Your task to perform on an android device: refresh tabs in the chrome app Image 0: 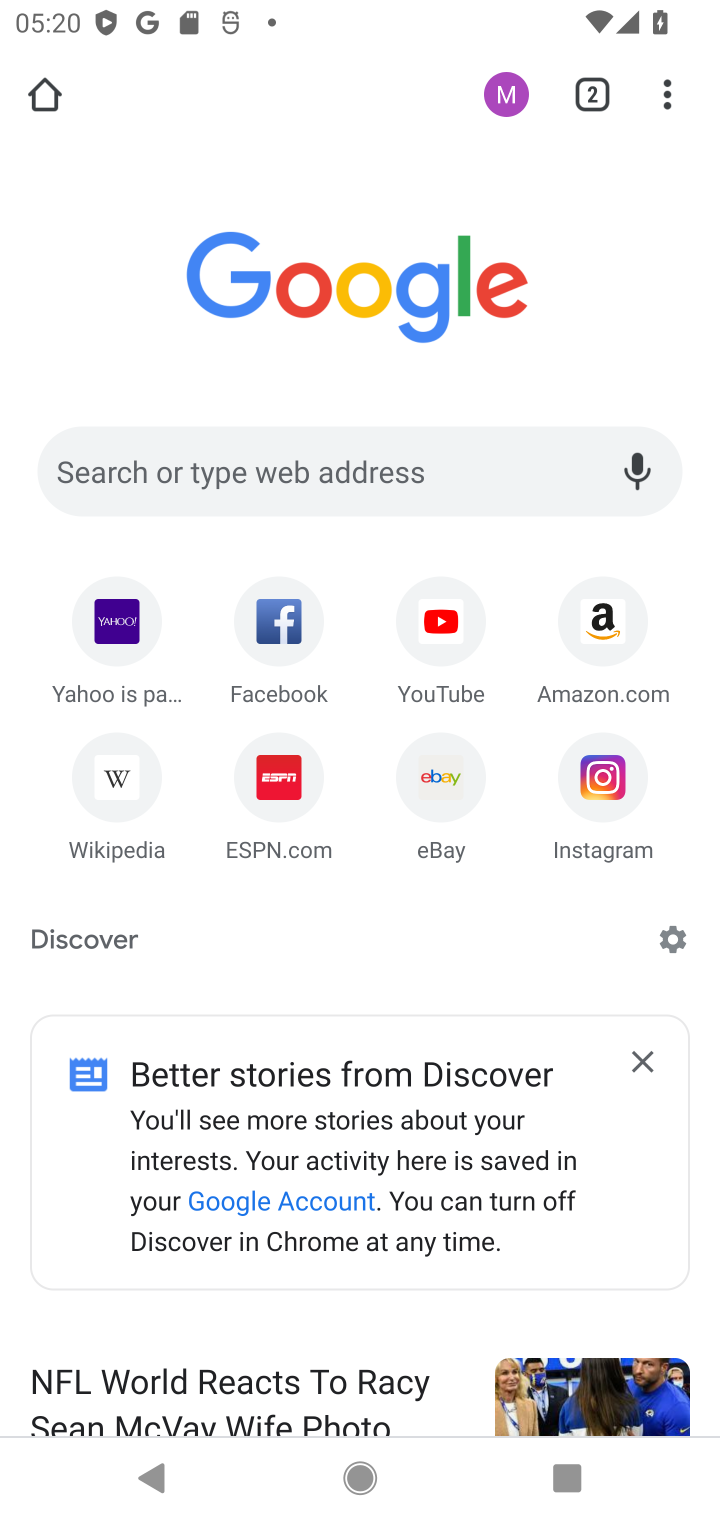
Step 0: press home button
Your task to perform on an android device: refresh tabs in the chrome app Image 1: 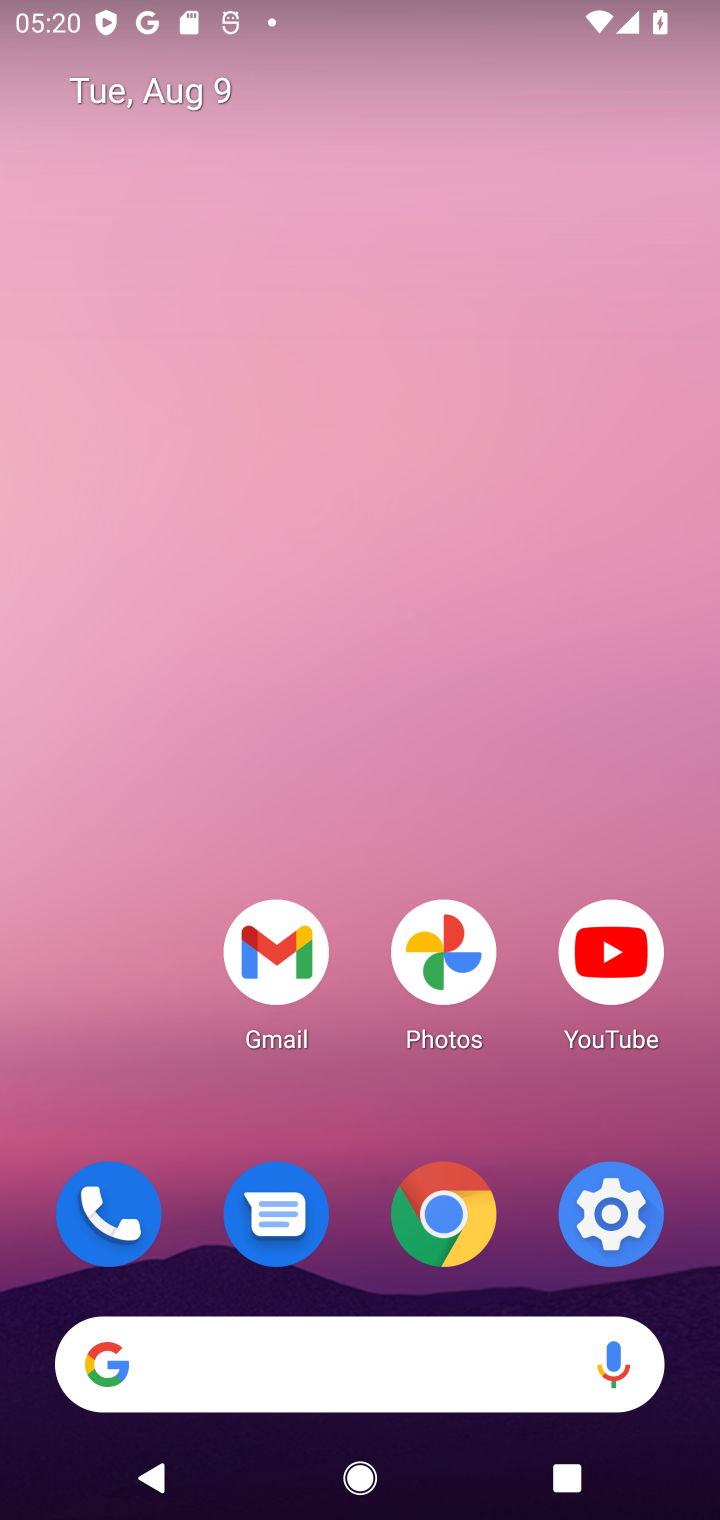
Step 1: drag from (373, 1408) to (441, 241)
Your task to perform on an android device: refresh tabs in the chrome app Image 2: 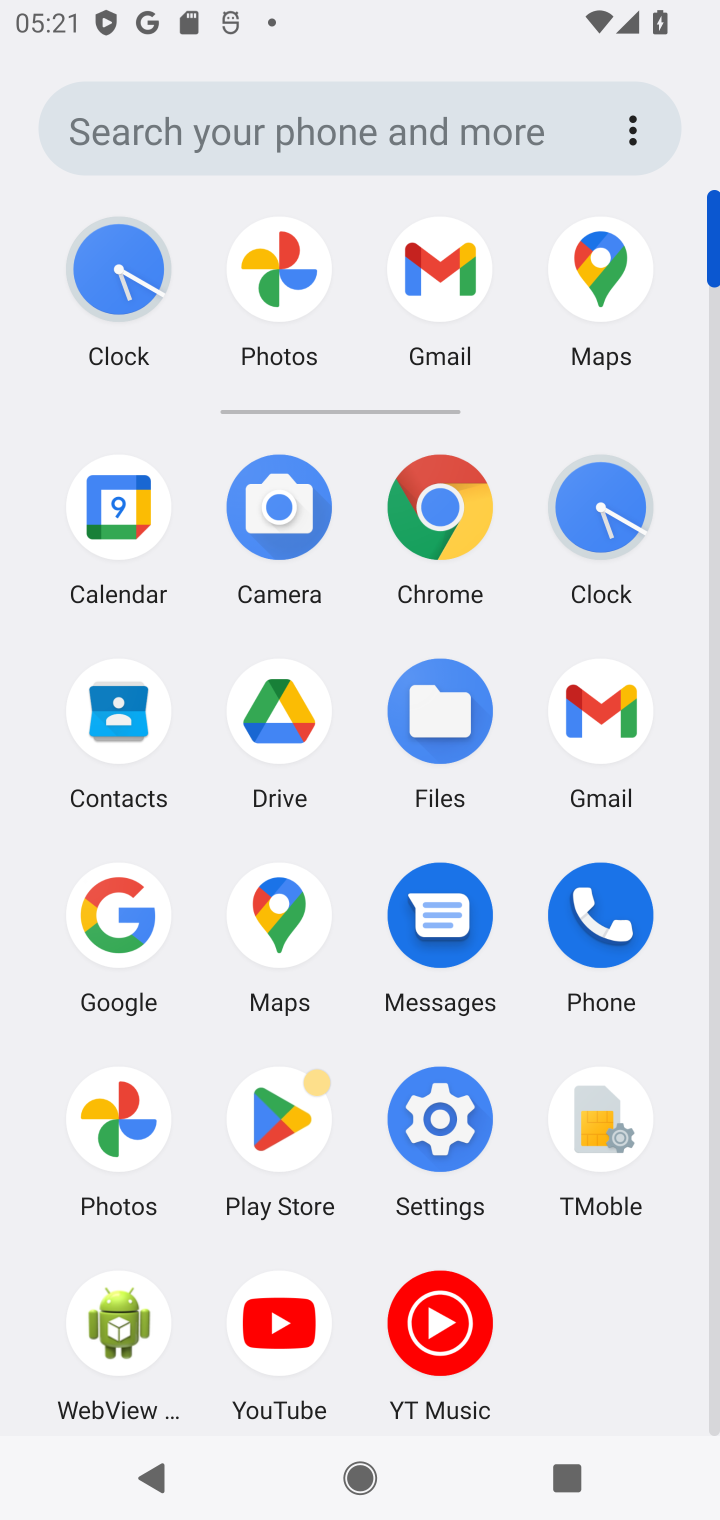
Step 2: click (437, 521)
Your task to perform on an android device: refresh tabs in the chrome app Image 3: 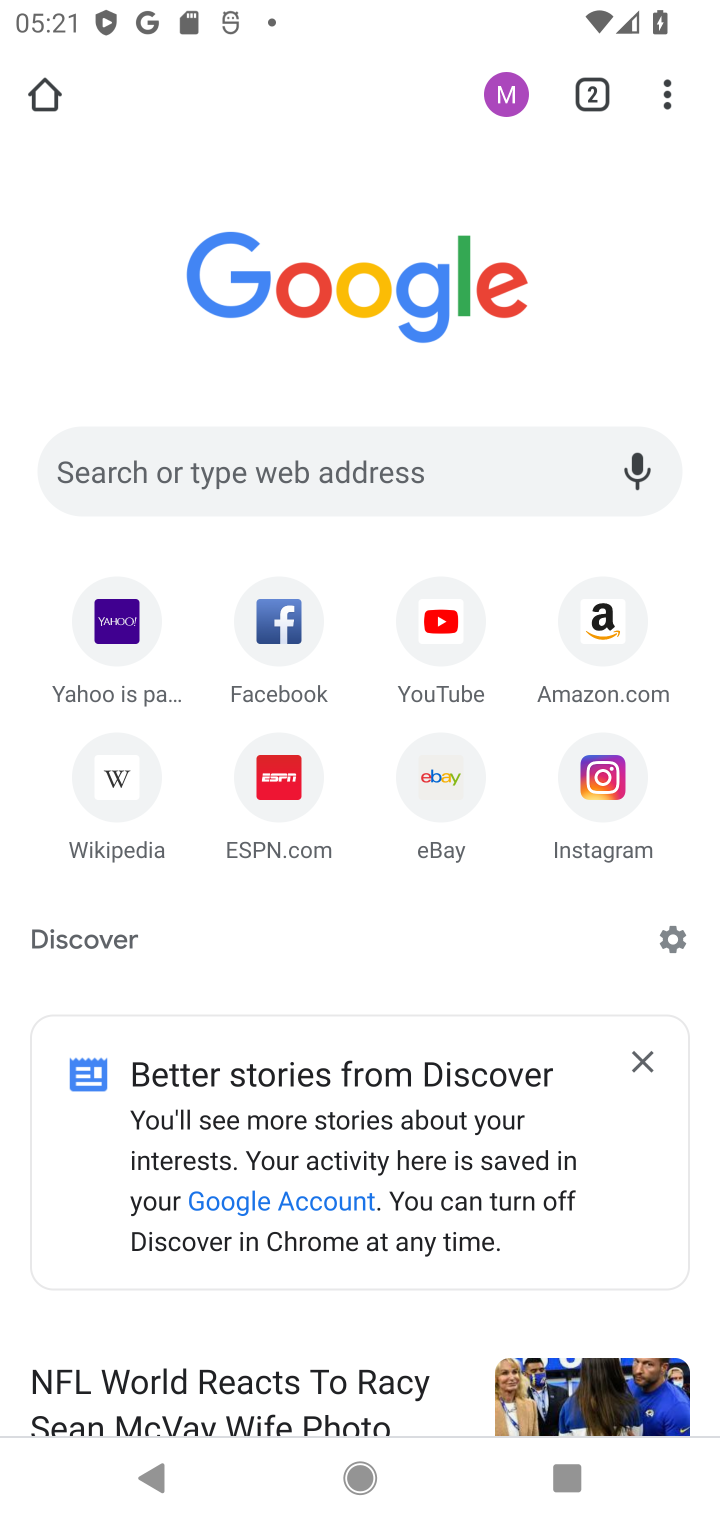
Step 3: click (659, 122)
Your task to perform on an android device: refresh tabs in the chrome app Image 4: 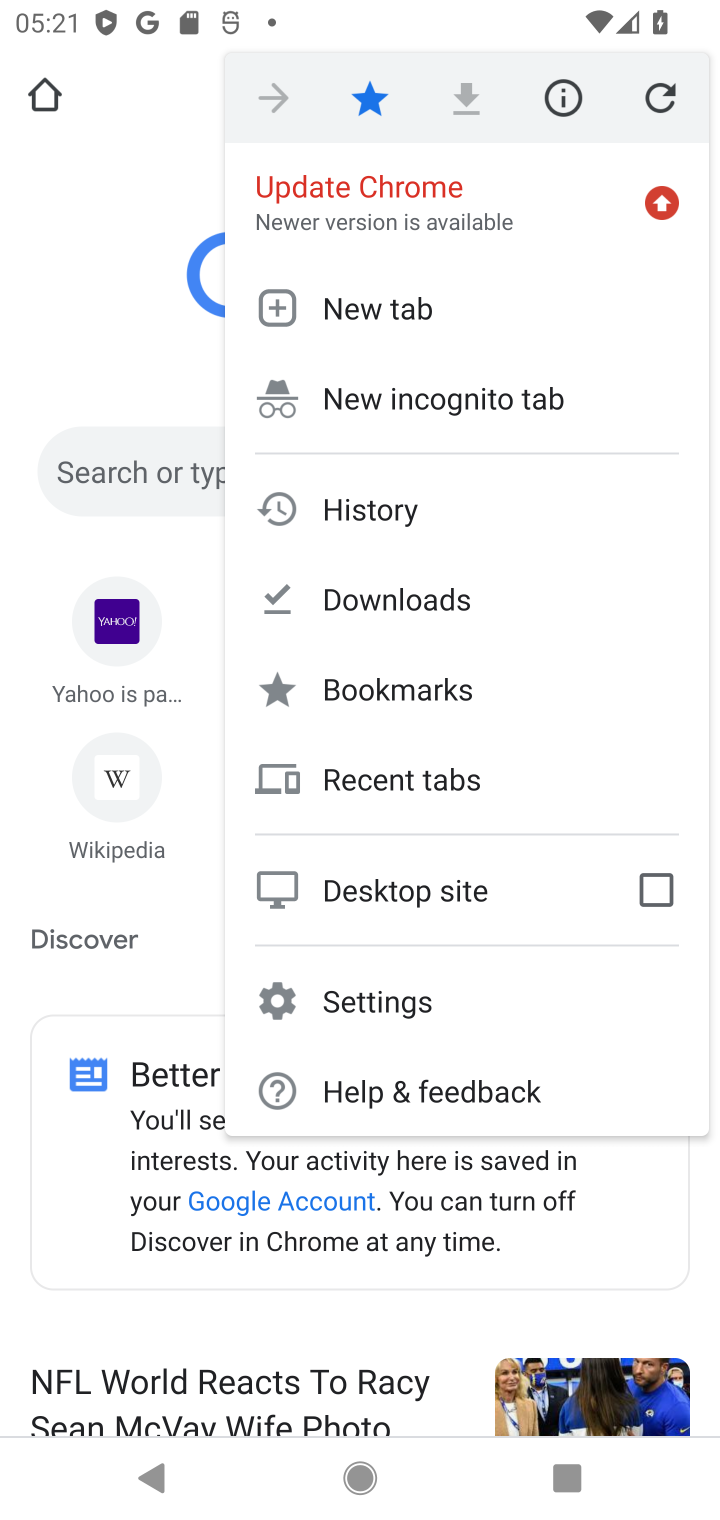
Step 4: click (410, 319)
Your task to perform on an android device: refresh tabs in the chrome app Image 5: 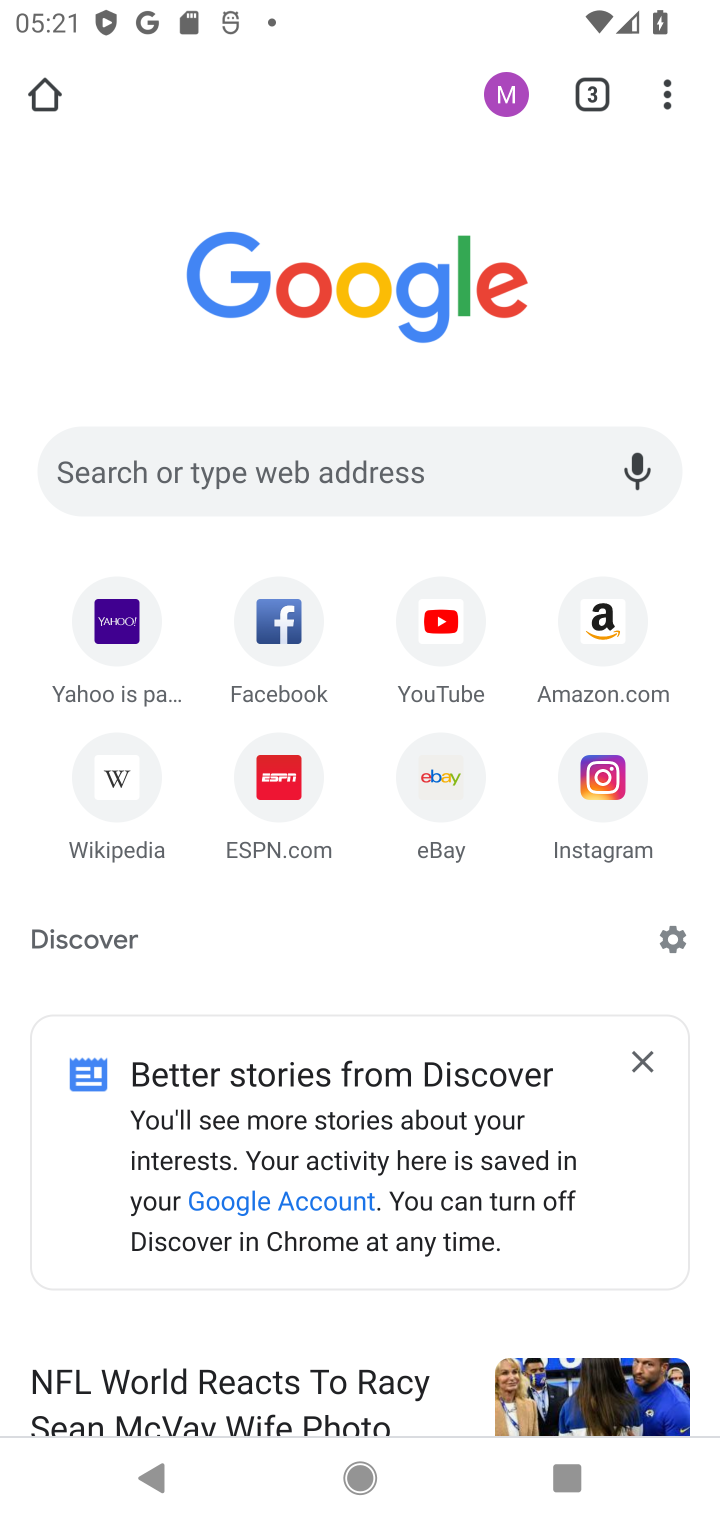
Step 5: click (669, 82)
Your task to perform on an android device: refresh tabs in the chrome app Image 6: 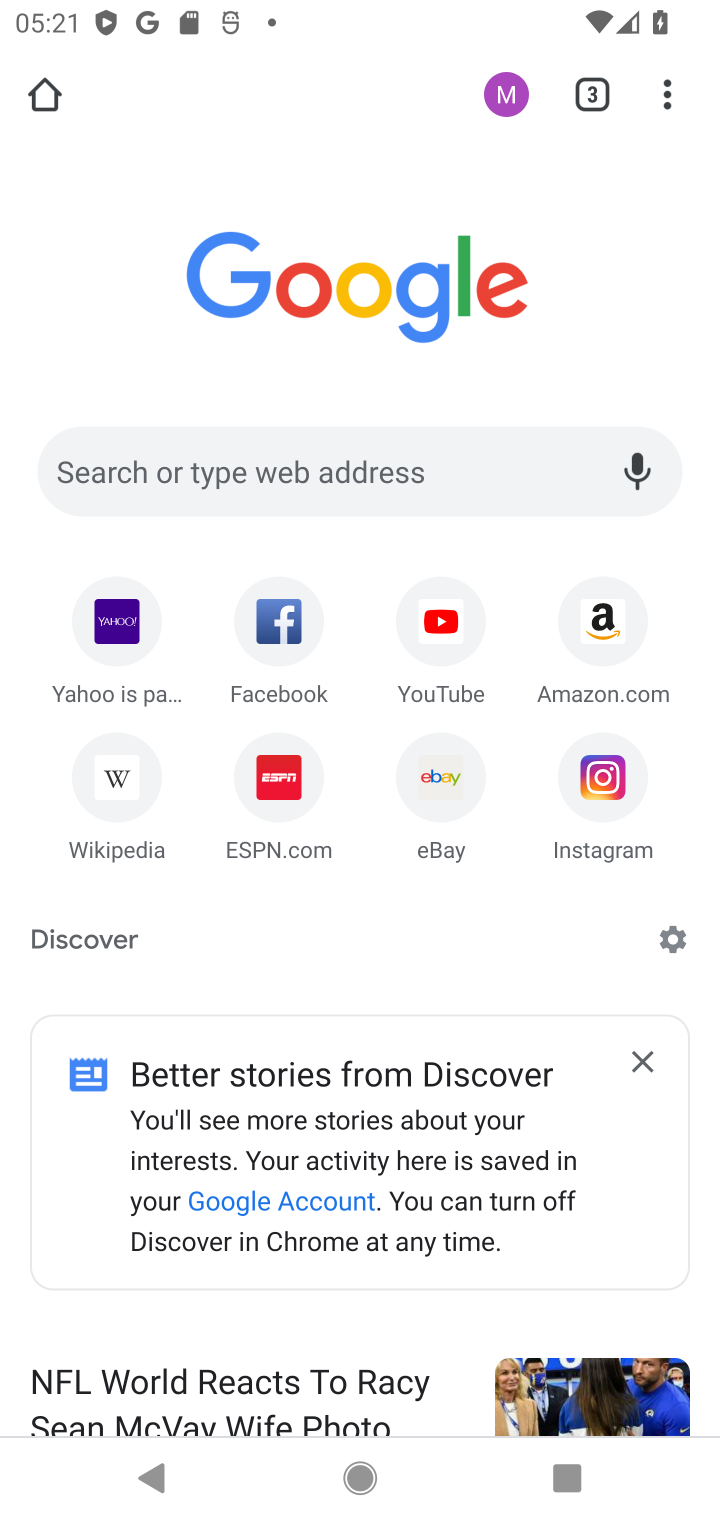
Step 6: click (663, 104)
Your task to perform on an android device: refresh tabs in the chrome app Image 7: 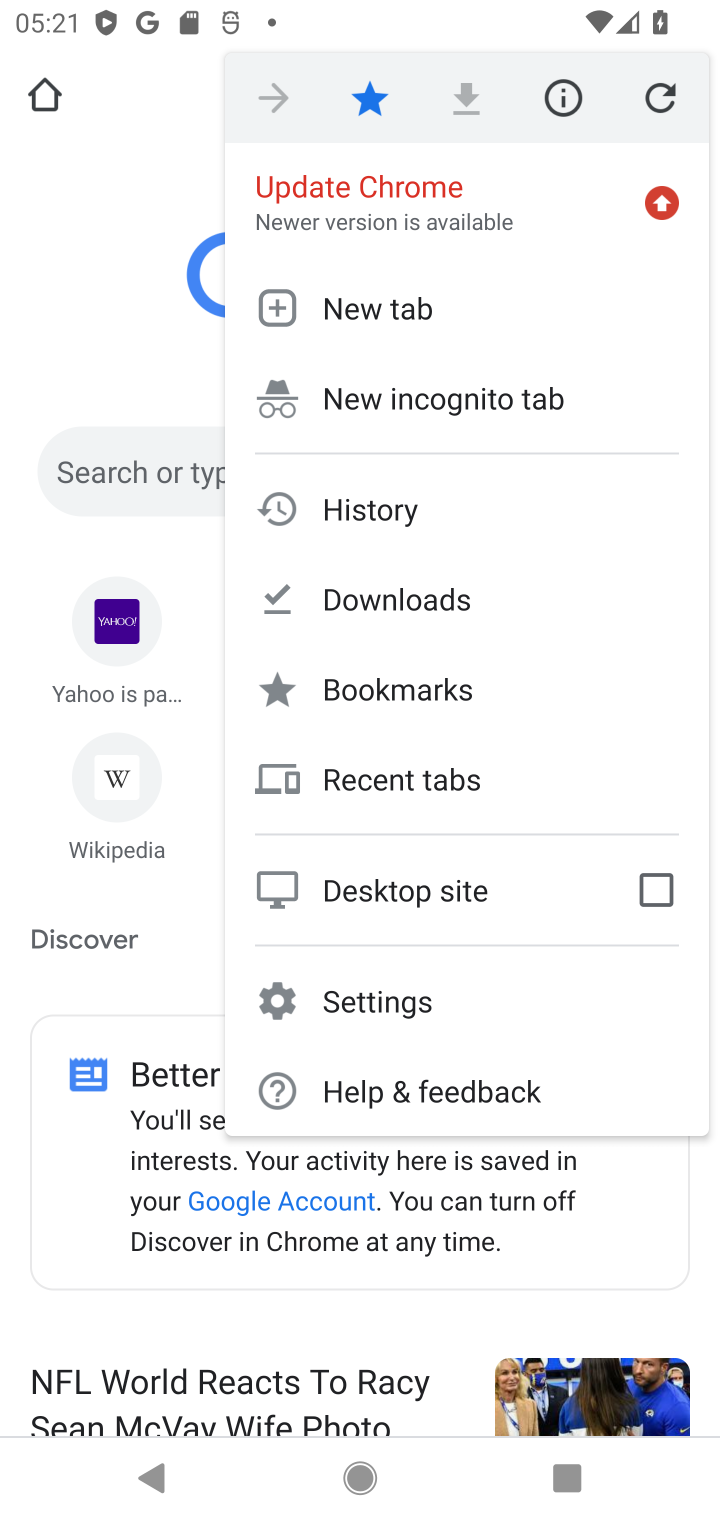
Step 7: click (656, 106)
Your task to perform on an android device: refresh tabs in the chrome app Image 8: 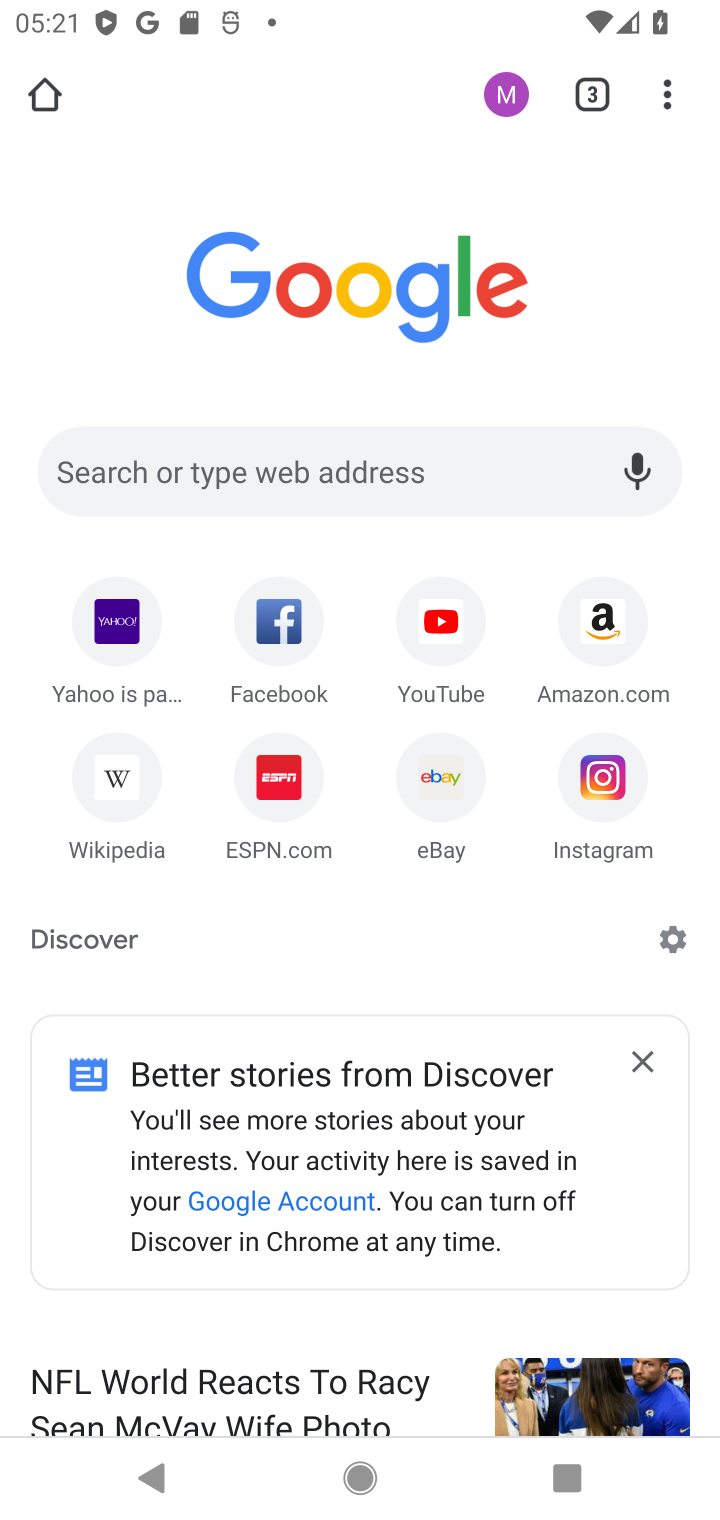
Step 8: task complete